Your task to perform on an android device: empty trash in the gmail app Image 0: 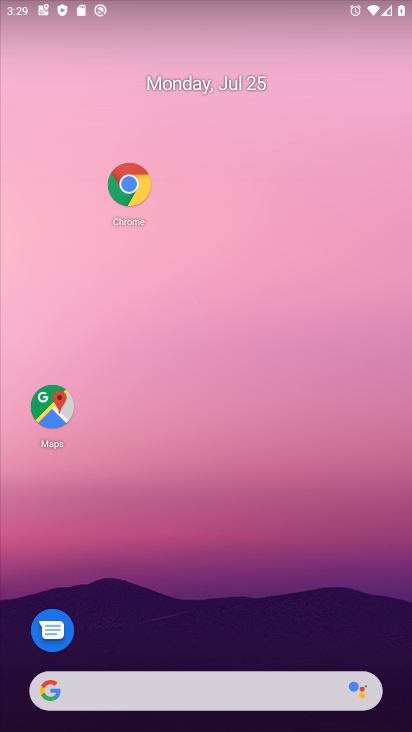
Step 0: drag from (232, 655) to (234, 231)
Your task to perform on an android device: empty trash in the gmail app Image 1: 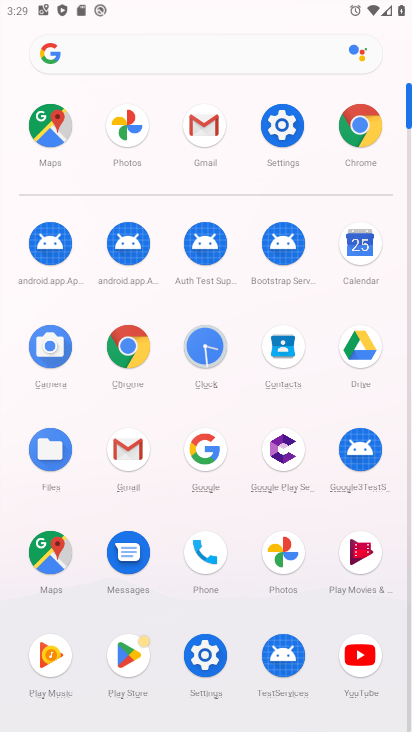
Step 1: click (206, 149)
Your task to perform on an android device: empty trash in the gmail app Image 2: 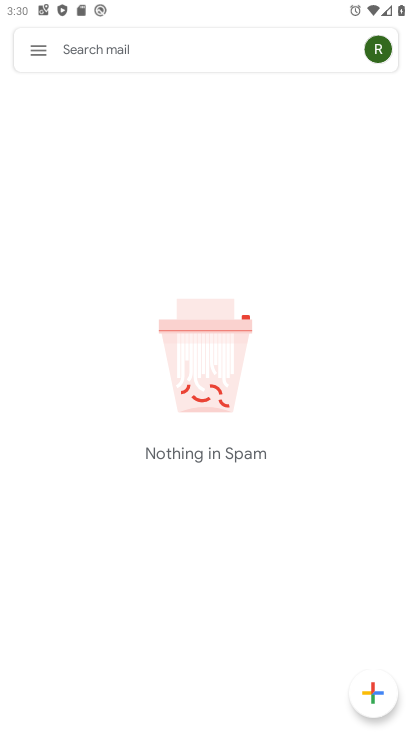
Step 2: task complete